Your task to perform on an android device: Show me recent news Image 0: 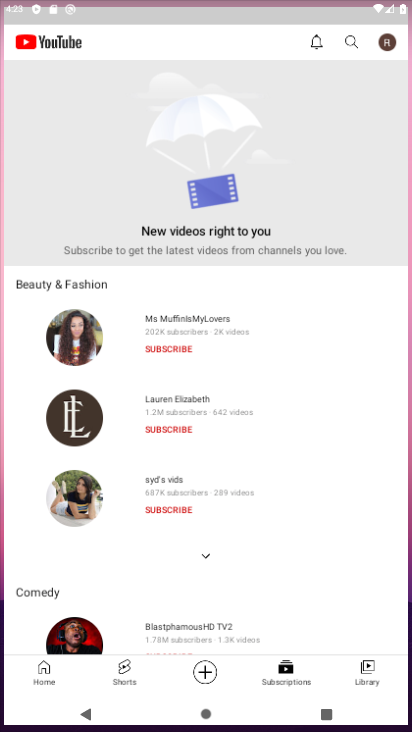
Step 0: drag from (256, 633) to (140, 56)
Your task to perform on an android device: Show me recent news Image 1: 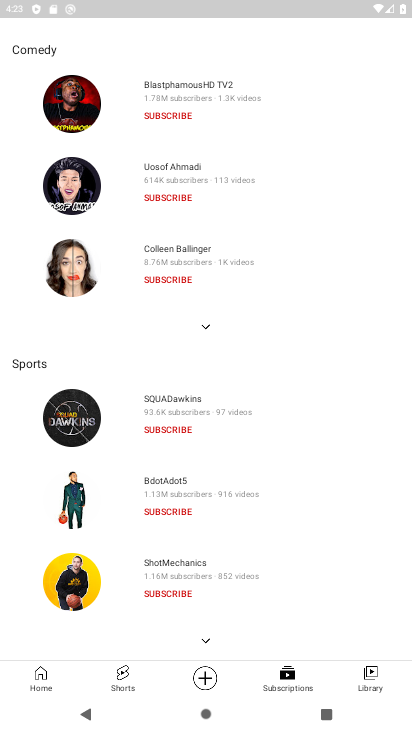
Step 1: press home button
Your task to perform on an android device: Show me recent news Image 2: 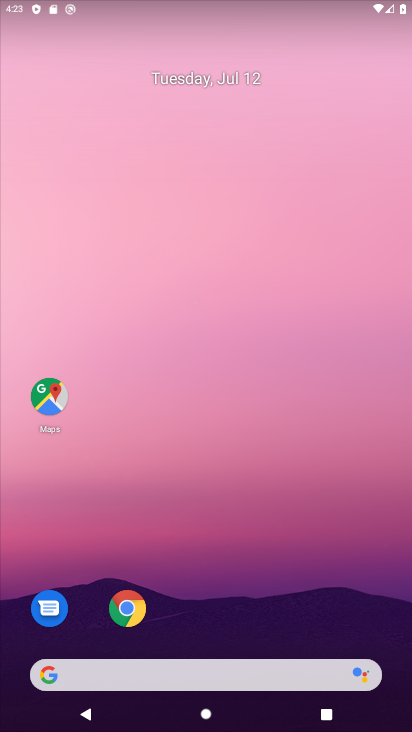
Step 2: drag from (210, 640) to (111, 60)
Your task to perform on an android device: Show me recent news Image 3: 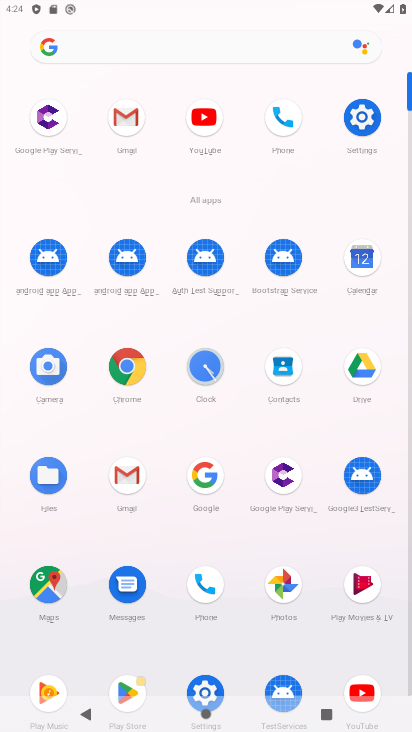
Step 3: click (127, 379)
Your task to perform on an android device: Show me recent news Image 4: 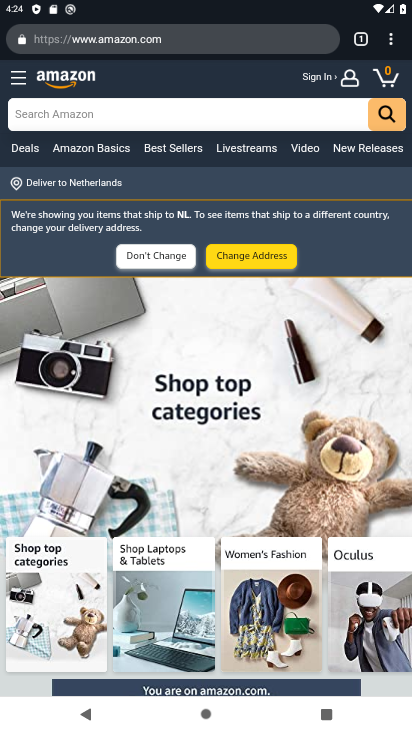
Step 4: click (312, 36)
Your task to perform on an android device: Show me recent news Image 5: 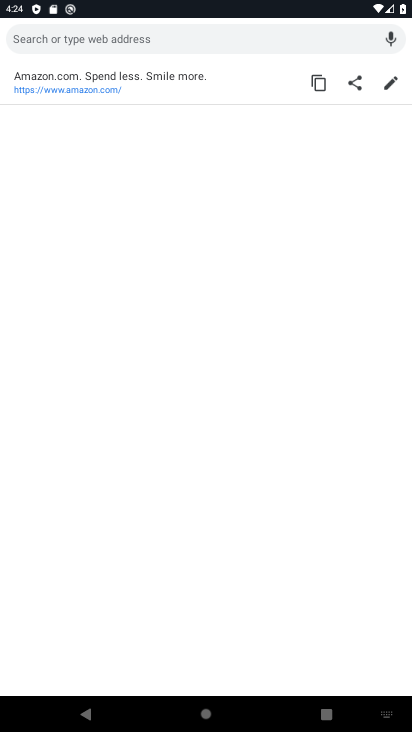
Step 5: type "recent news"
Your task to perform on an android device: Show me recent news Image 6: 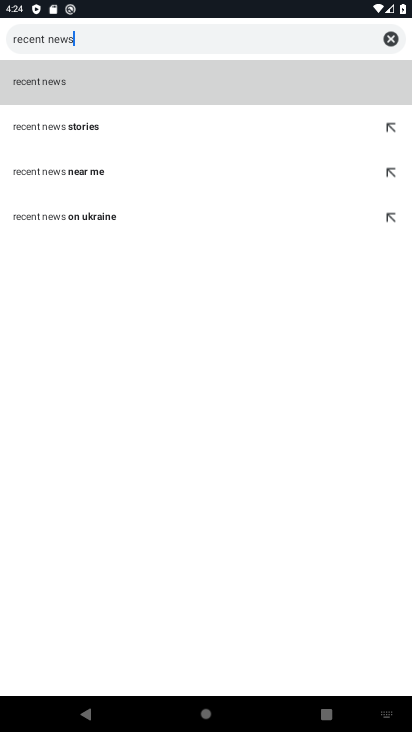
Step 6: click (51, 82)
Your task to perform on an android device: Show me recent news Image 7: 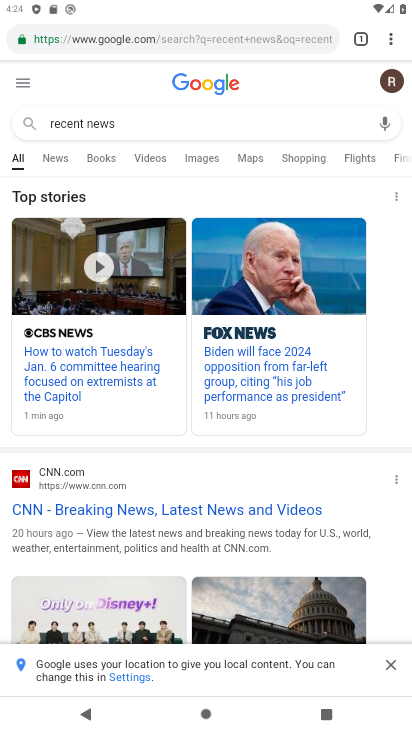
Step 7: click (392, 666)
Your task to perform on an android device: Show me recent news Image 8: 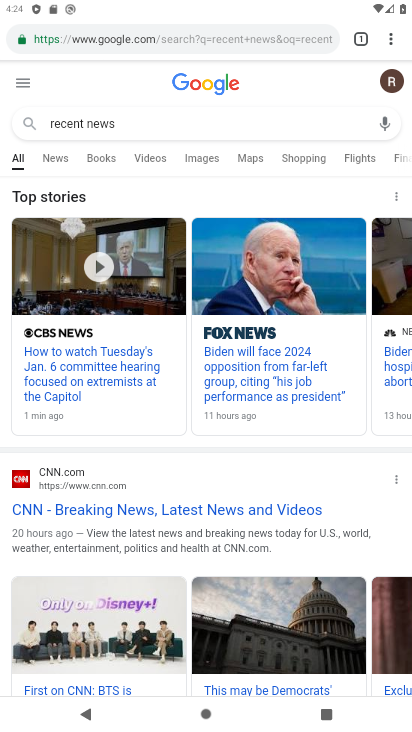
Step 8: task complete